Your task to perform on an android device: turn off data saver in the chrome app Image 0: 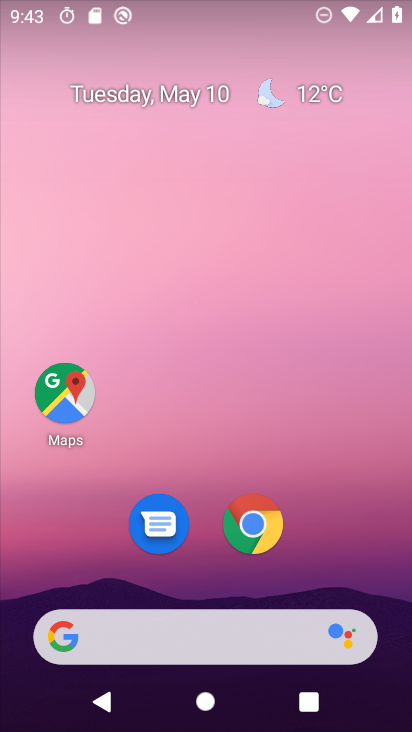
Step 0: click (270, 528)
Your task to perform on an android device: turn off data saver in the chrome app Image 1: 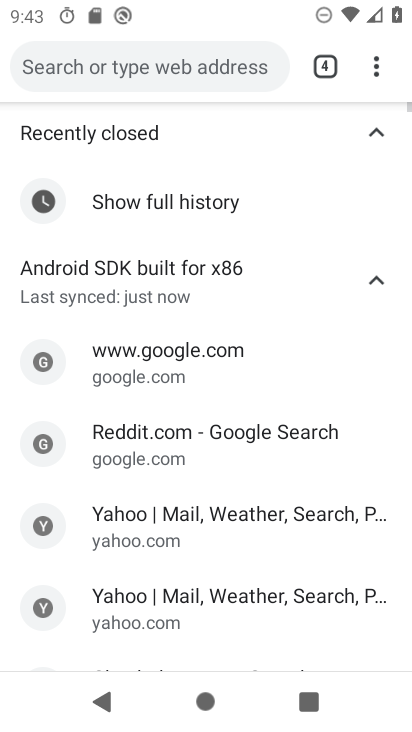
Step 1: click (377, 65)
Your task to perform on an android device: turn off data saver in the chrome app Image 2: 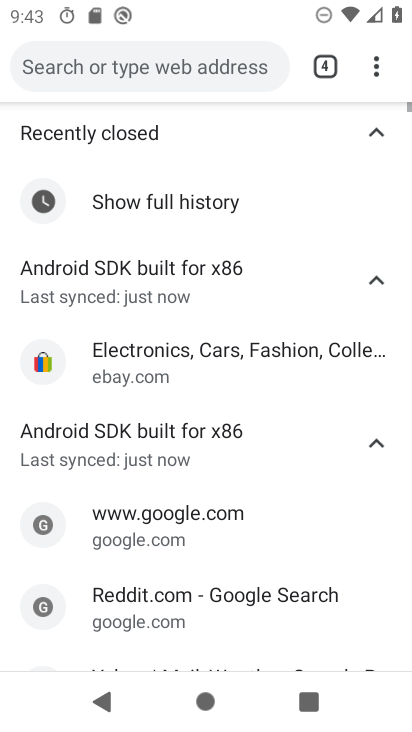
Step 2: click (377, 65)
Your task to perform on an android device: turn off data saver in the chrome app Image 3: 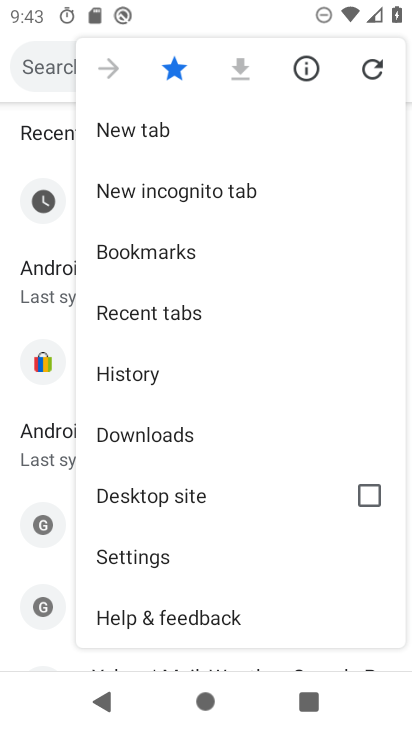
Step 3: click (177, 557)
Your task to perform on an android device: turn off data saver in the chrome app Image 4: 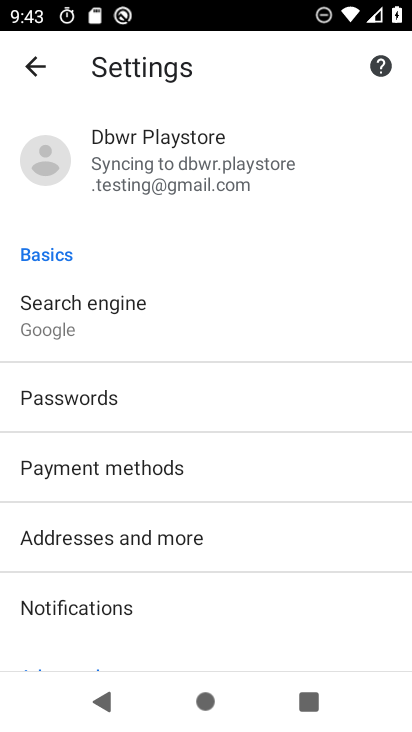
Step 4: drag from (242, 560) to (271, 153)
Your task to perform on an android device: turn off data saver in the chrome app Image 5: 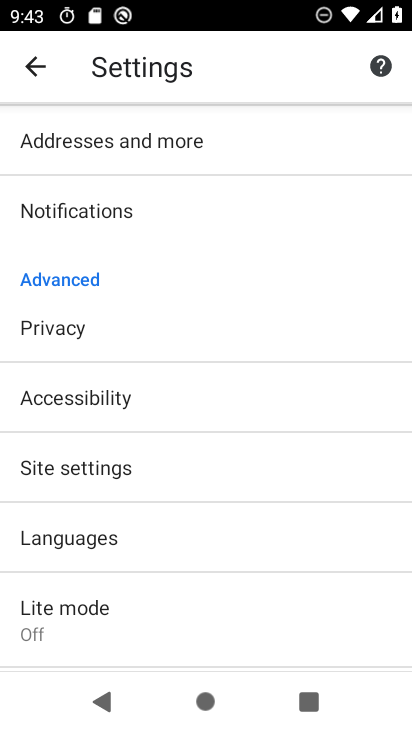
Step 5: click (127, 617)
Your task to perform on an android device: turn off data saver in the chrome app Image 6: 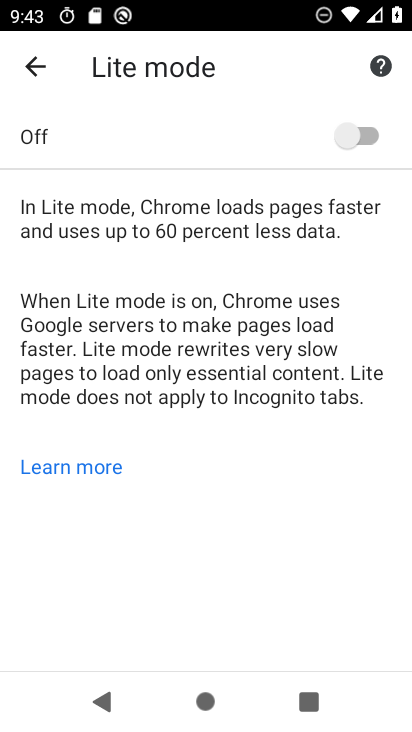
Step 6: task complete